Your task to perform on an android device: toggle show notifications on the lock screen Image 0: 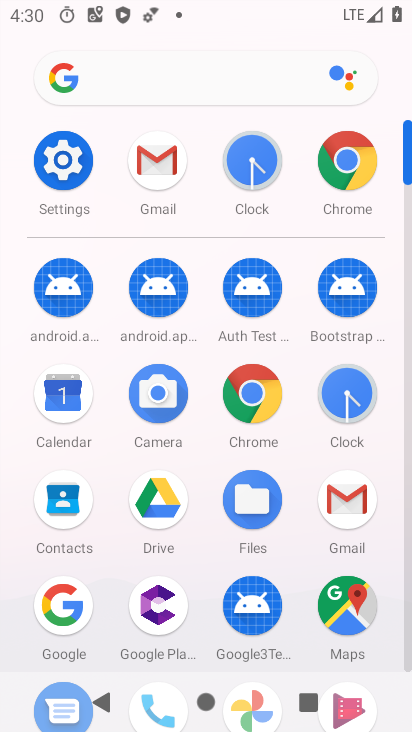
Step 0: press home button
Your task to perform on an android device: toggle show notifications on the lock screen Image 1: 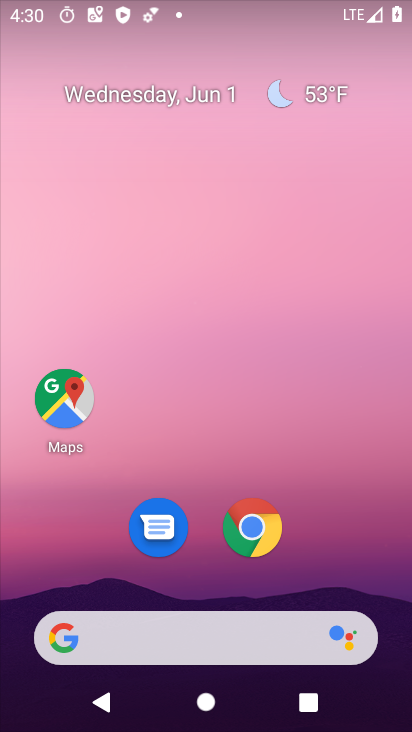
Step 1: drag from (313, 553) to (311, 39)
Your task to perform on an android device: toggle show notifications on the lock screen Image 2: 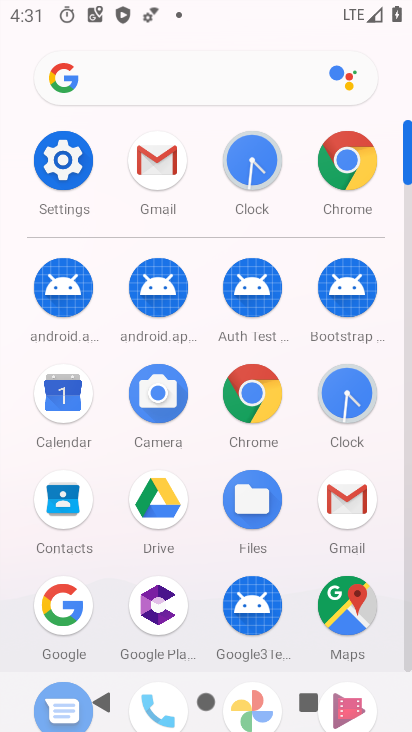
Step 2: click (67, 150)
Your task to perform on an android device: toggle show notifications on the lock screen Image 3: 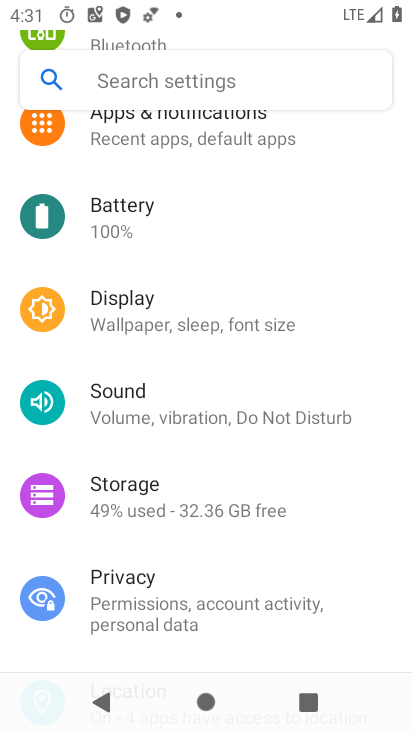
Step 3: click (146, 124)
Your task to perform on an android device: toggle show notifications on the lock screen Image 4: 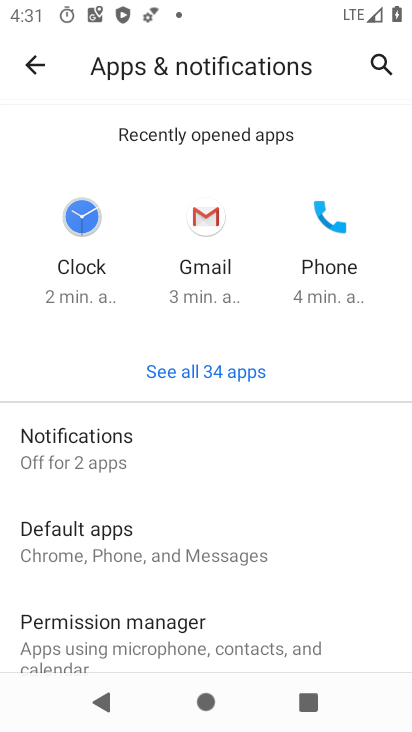
Step 4: click (75, 453)
Your task to perform on an android device: toggle show notifications on the lock screen Image 5: 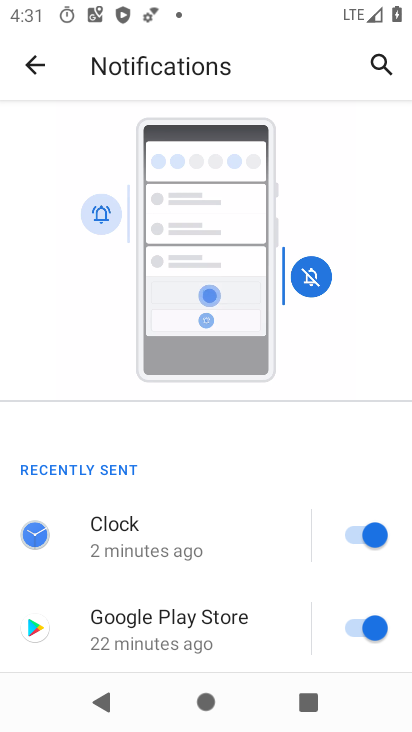
Step 5: drag from (256, 297) to (276, 123)
Your task to perform on an android device: toggle show notifications on the lock screen Image 6: 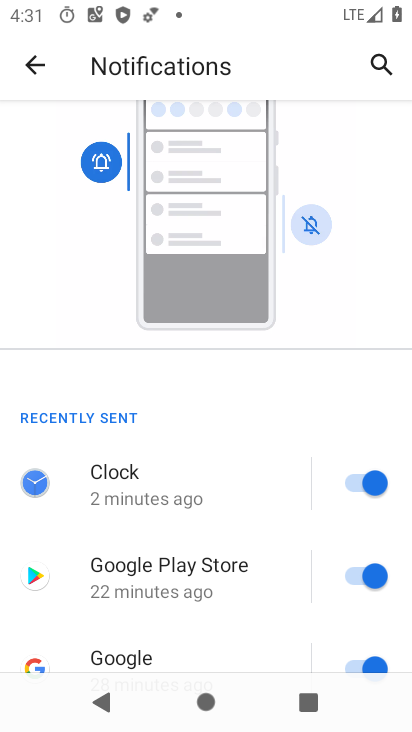
Step 6: drag from (210, 607) to (256, 170)
Your task to perform on an android device: toggle show notifications on the lock screen Image 7: 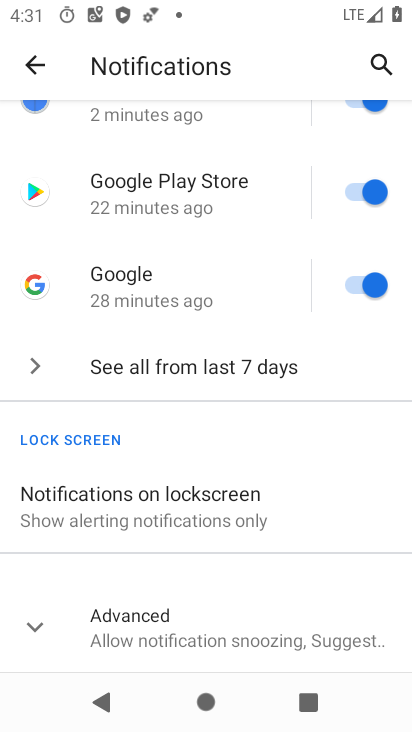
Step 7: drag from (241, 510) to (274, 372)
Your task to perform on an android device: toggle show notifications on the lock screen Image 8: 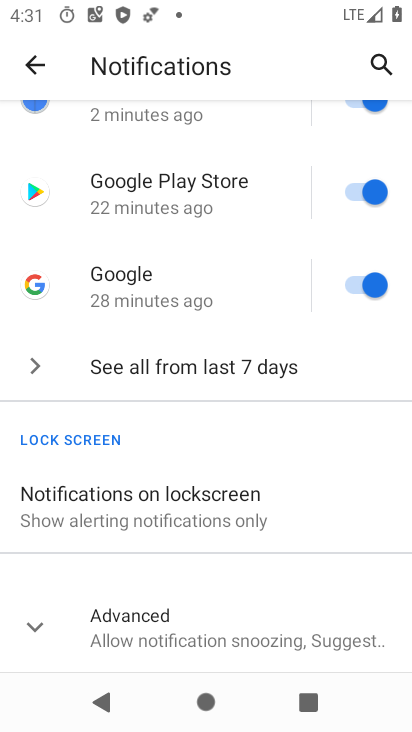
Step 8: click (156, 503)
Your task to perform on an android device: toggle show notifications on the lock screen Image 9: 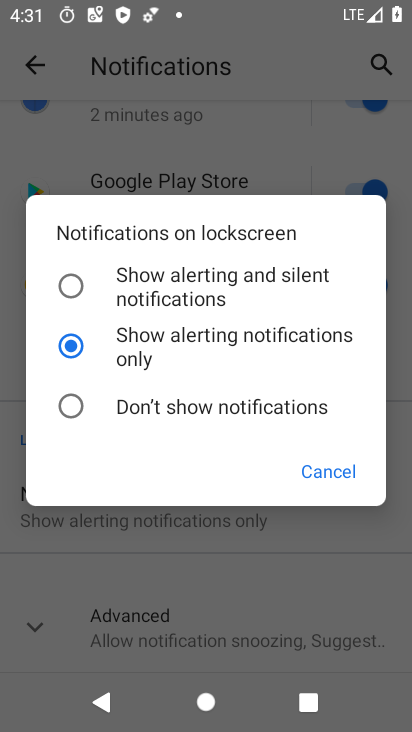
Step 9: click (144, 295)
Your task to perform on an android device: toggle show notifications on the lock screen Image 10: 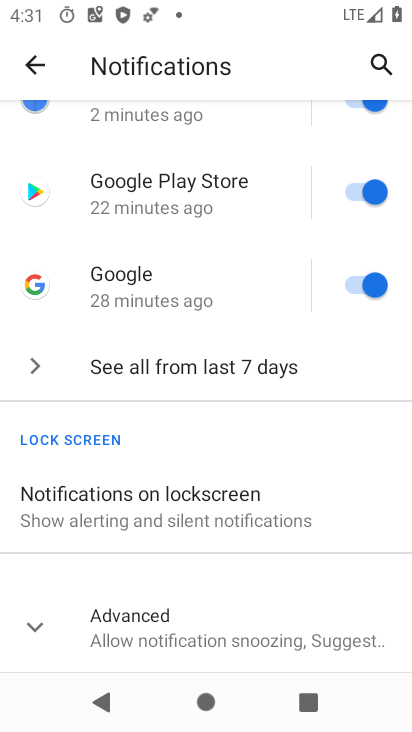
Step 10: task complete